Your task to perform on an android device: turn on notifications settings in the gmail app Image 0: 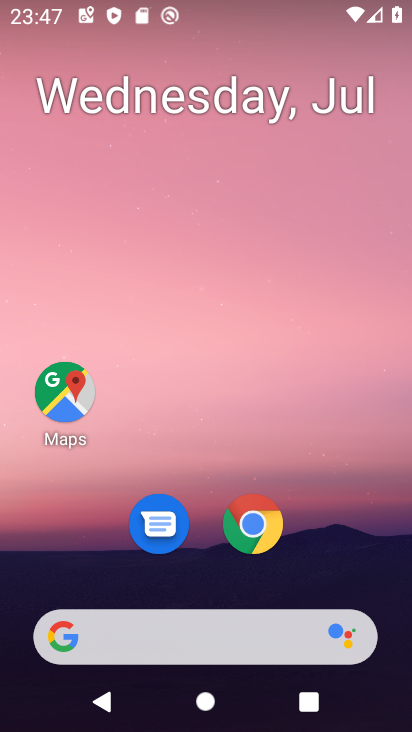
Step 0: drag from (202, 599) to (327, 167)
Your task to perform on an android device: turn on notifications settings in the gmail app Image 1: 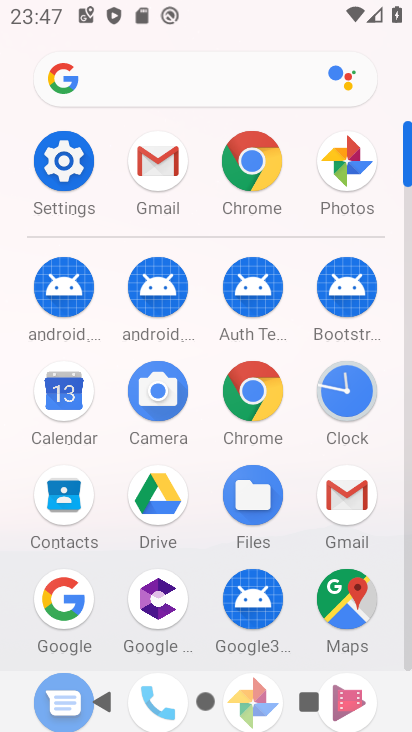
Step 1: click (161, 179)
Your task to perform on an android device: turn on notifications settings in the gmail app Image 2: 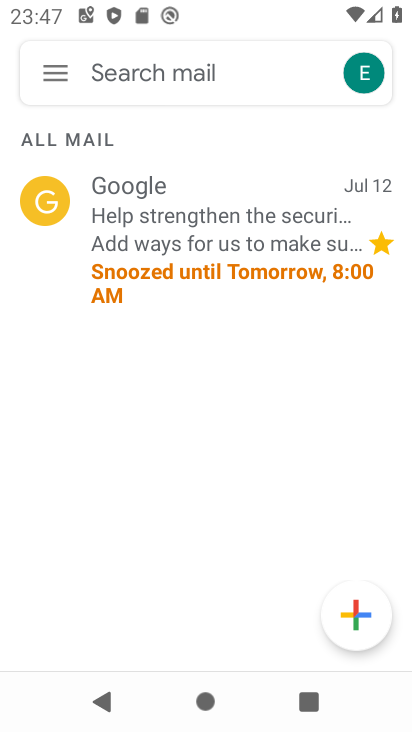
Step 2: click (61, 76)
Your task to perform on an android device: turn on notifications settings in the gmail app Image 3: 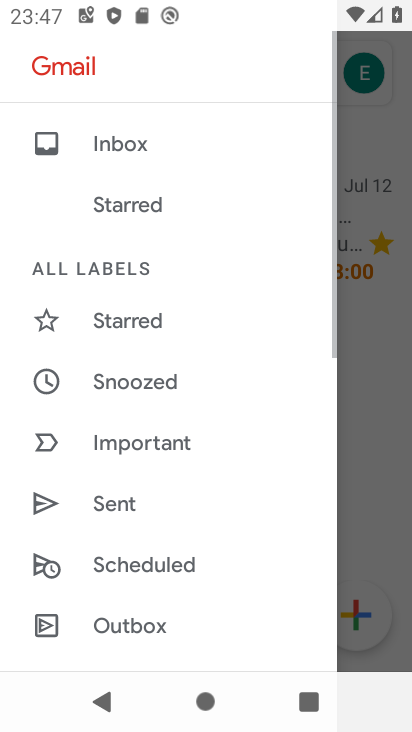
Step 3: drag from (188, 610) to (289, 97)
Your task to perform on an android device: turn on notifications settings in the gmail app Image 4: 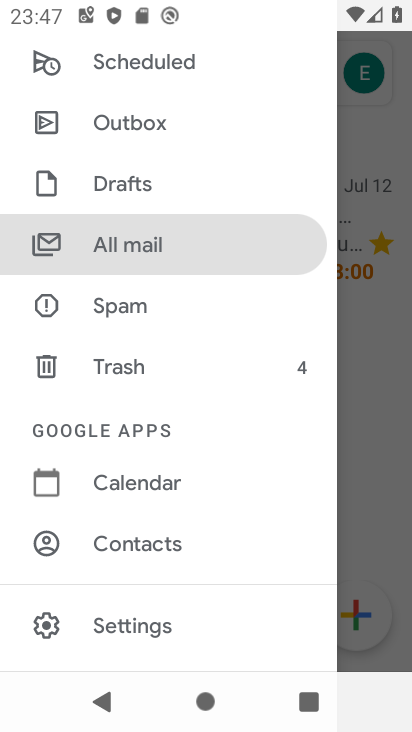
Step 4: click (170, 627)
Your task to perform on an android device: turn on notifications settings in the gmail app Image 5: 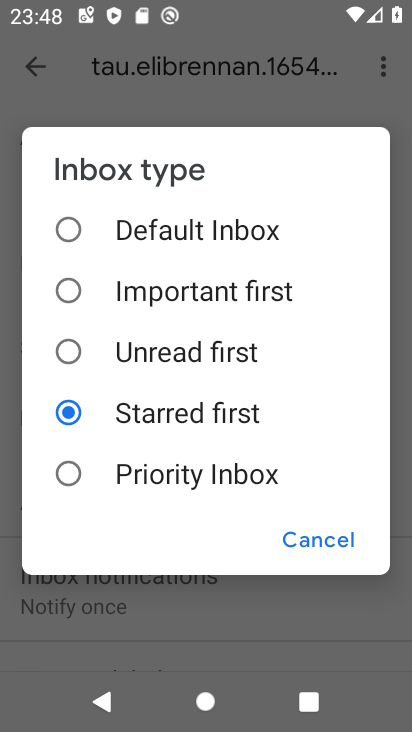
Step 5: click (310, 541)
Your task to perform on an android device: turn on notifications settings in the gmail app Image 6: 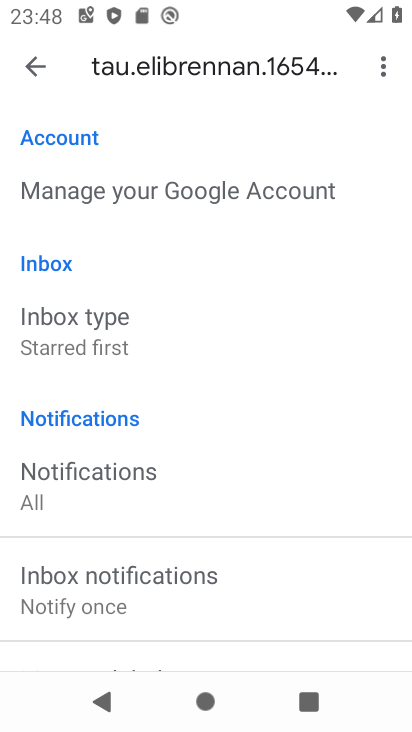
Step 6: click (96, 483)
Your task to perform on an android device: turn on notifications settings in the gmail app Image 7: 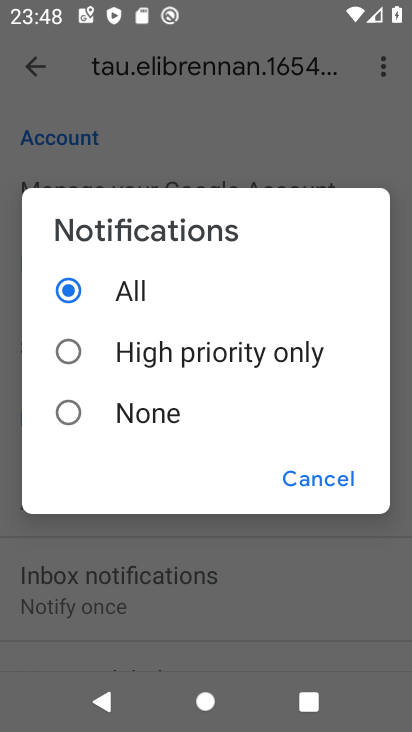
Step 7: task complete